Your task to perform on an android device: Open the Play Movies app and select the watchlist tab. Image 0: 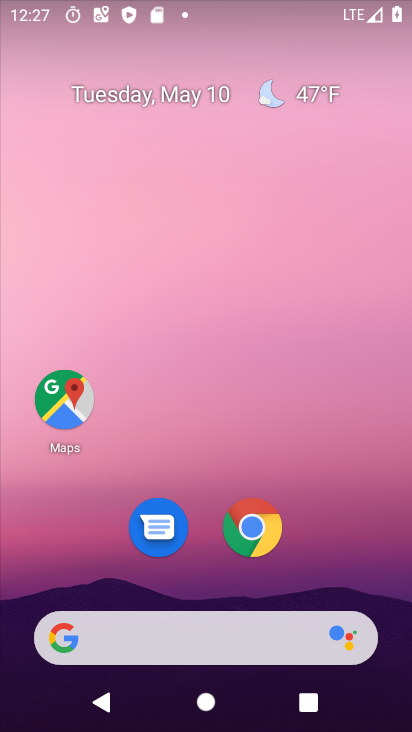
Step 0: drag from (386, 554) to (315, 103)
Your task to perform on an android device: Open the Play Movies app and select the watchlist tab. Image 1: 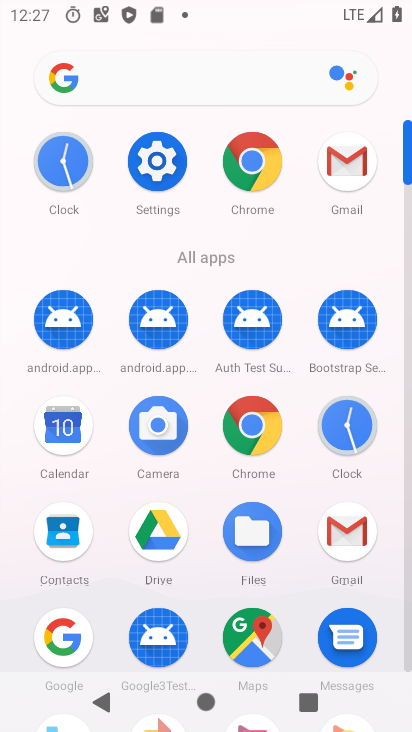
Step 1: drag from (325, 640) to (306, 322)
Your task to perform on an android device: Open the Play Movies app and select the watchlist tab. Image 2: 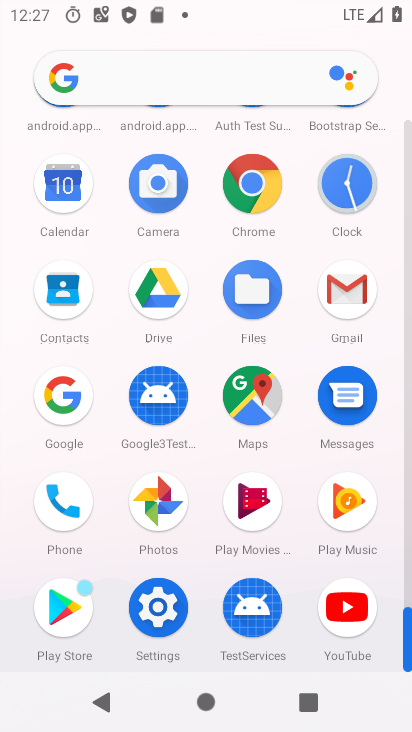
Step 2: click (250, 508)
Your task to perform on an android device: Open the Play Movies app and select the watchlist tab. Image 3: 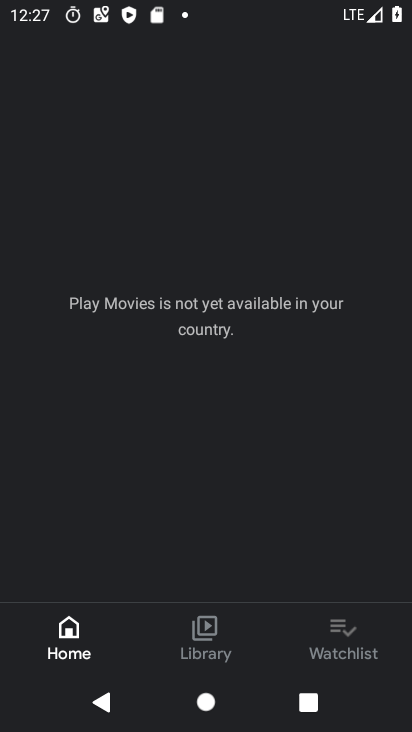
Step 3: click (341, 635)
Your task to perform on an android device: Open the Play Movies app and select the watchlist tab. Image 4: 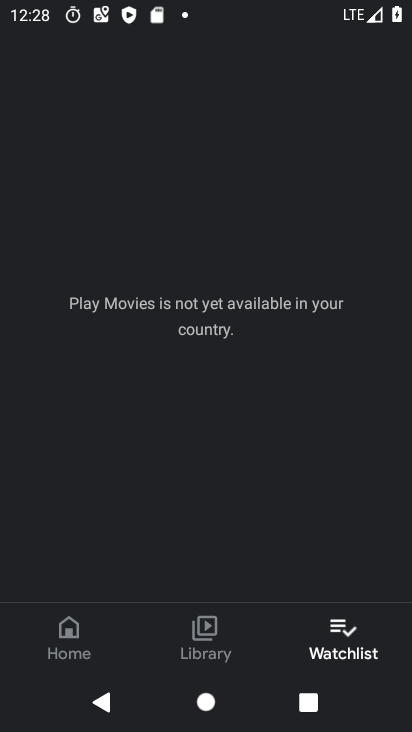
Step 4: task complete